Your task to perform on an android device: Open settings Image 0: 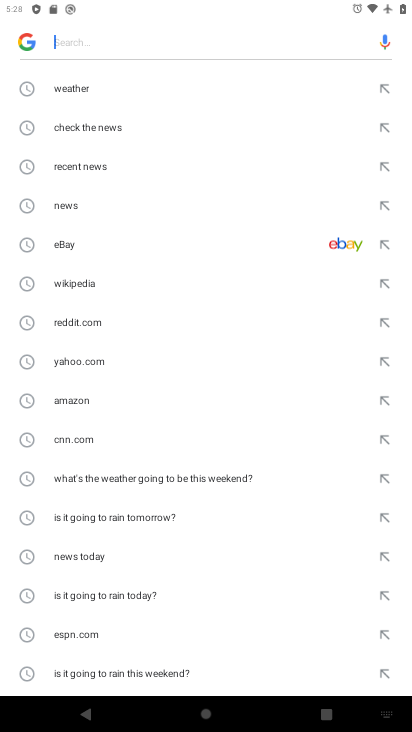
Step 0: press home button
Your task to perform on an android device: Open settings Image 1: 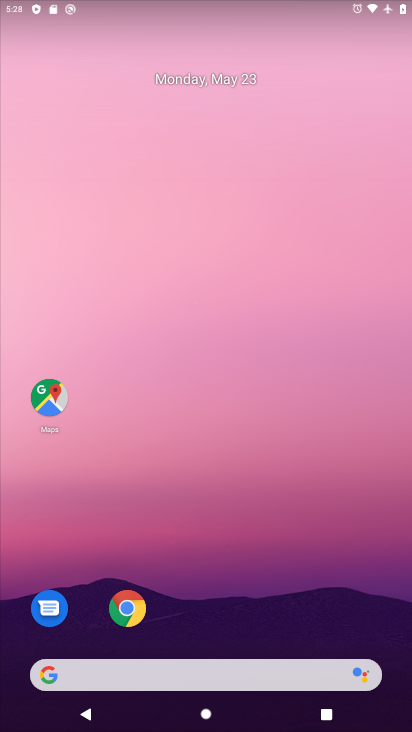
Step 1: drag from (264, 613) to (254, 233)
Your task to perform on an android device: Open settings Image 2: 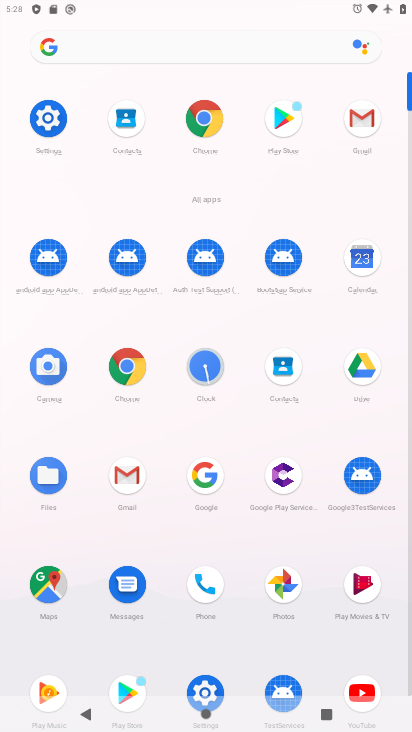
Step 2: click (43, 127)
Your task to perform on an android device: Open settings Image 3: 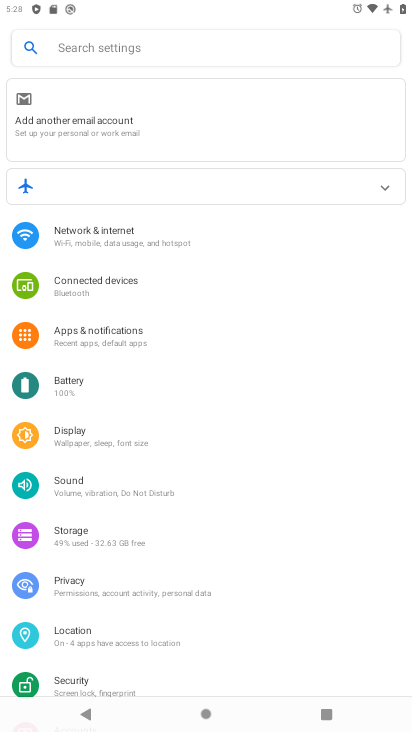
Step 3: task complete